Your task to perform on an android device: Clear all items from cart on bestbuy.com. Search for "acer nitro" on bestbuy.com, select the first entry, add it to the cart, then select checkout. Image 0: 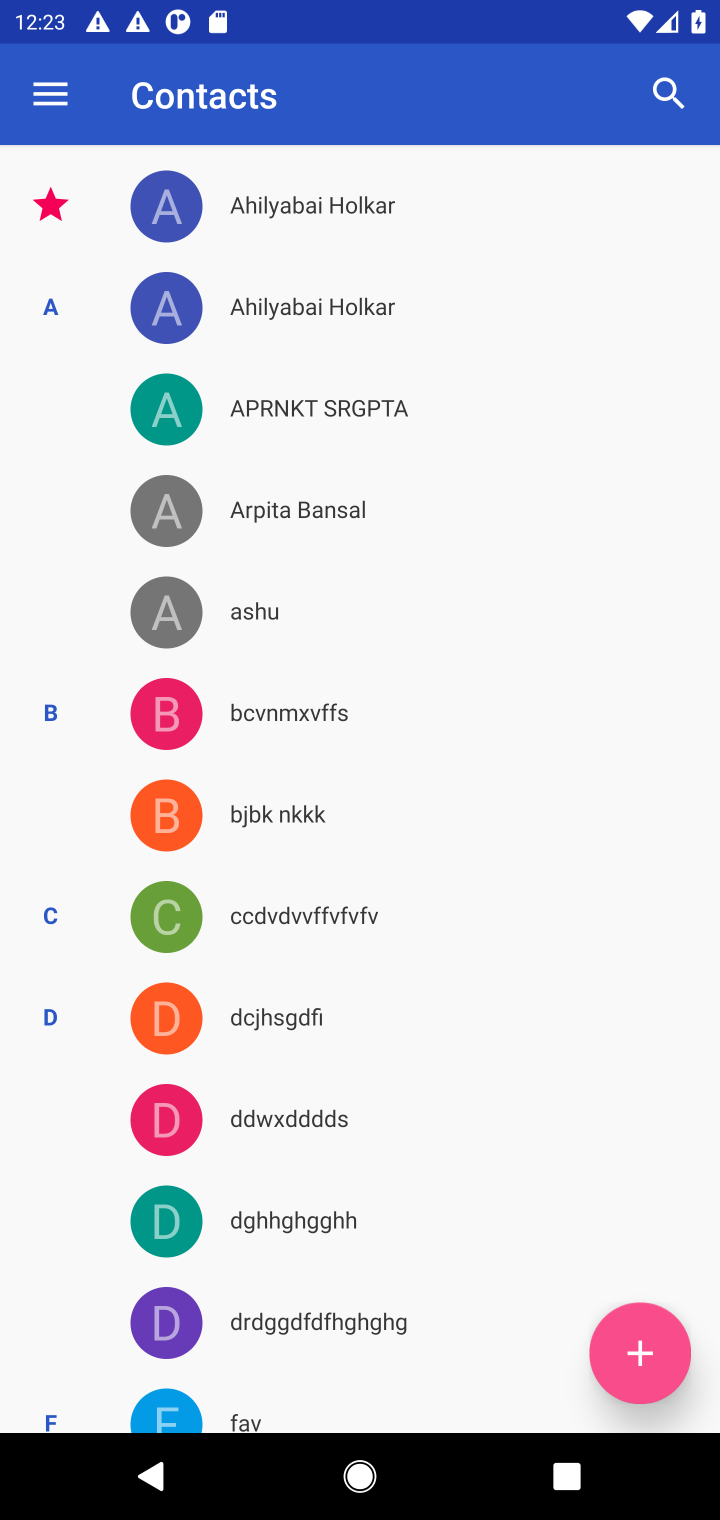
Step 0: press home button
Your task to perform on an android device: Clear all items from cart on bestbuy.com. Search for "acer nitro" on bestbuy.com, select the first entry, add it to the cart, then select checkout. Image 1: 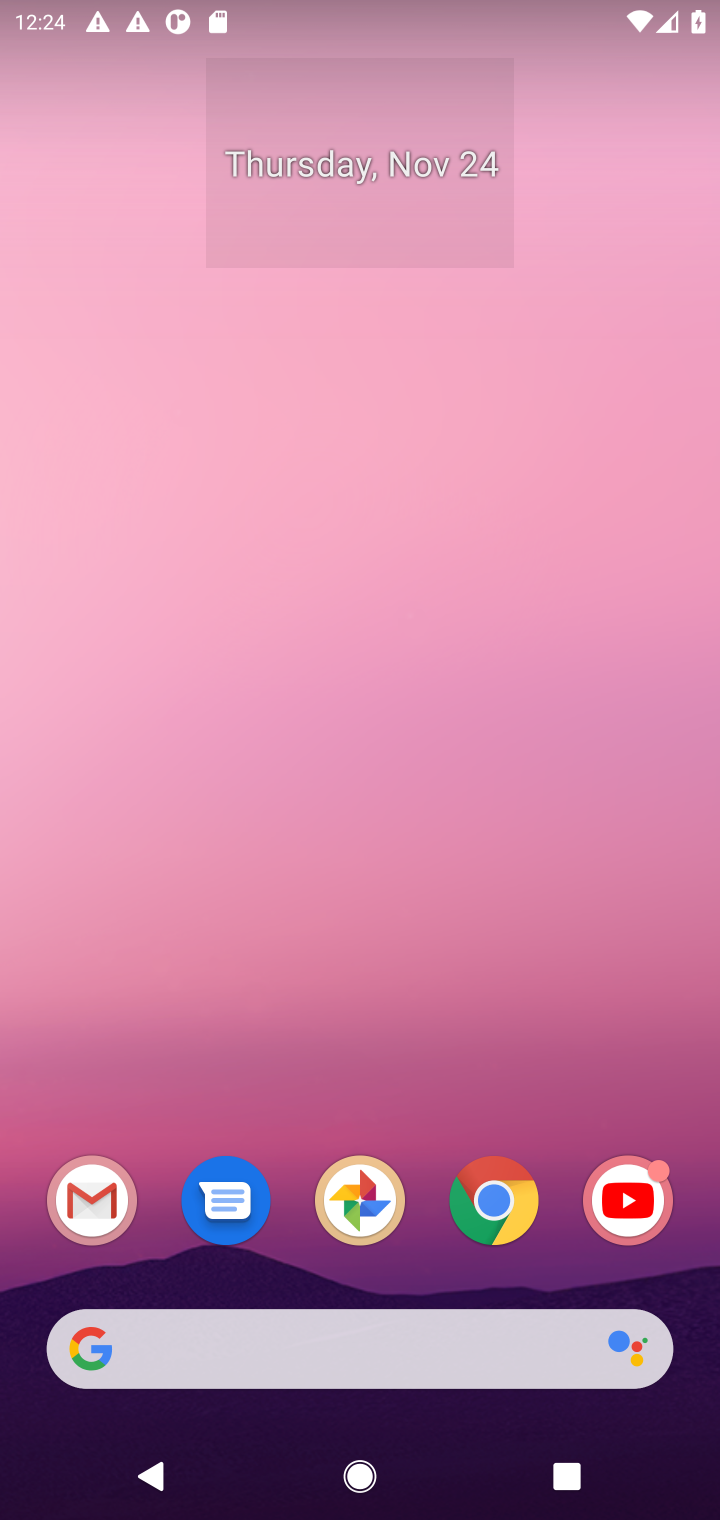
Step 1: click (384, 1366)
Your task to perform on an android device: Clear all items from cart on bestbuy.com. Search for "acer nitro" on bestbuy.com, select the first entry, add it to the cart, then select checkout. Image 2: 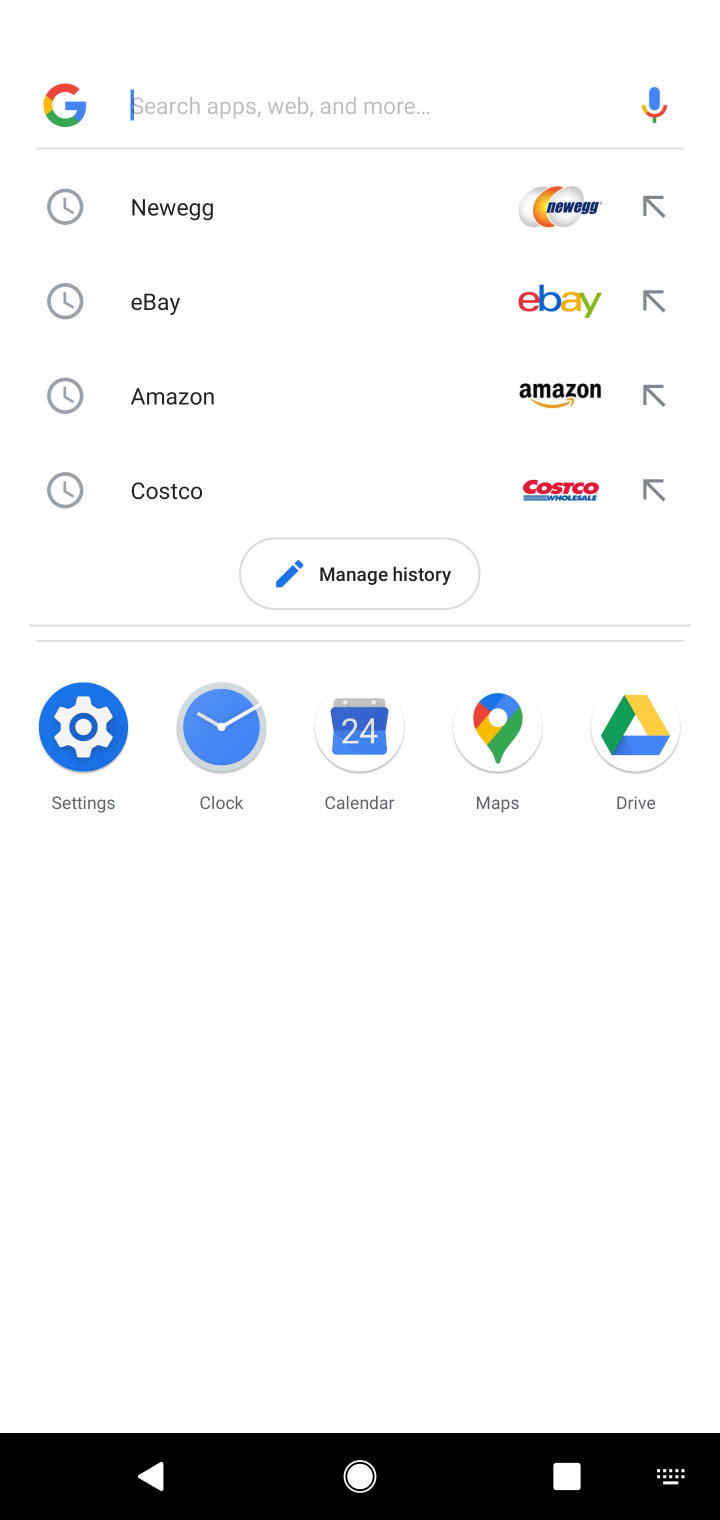
Step 2: type "bestbuy"
Your task to perform on an android device: Clear all items from cart on bestbuy.com. Search for "acer nitro" on bestbuy.com, select the first entry, add it to the cart, then select checkout. Image 3: 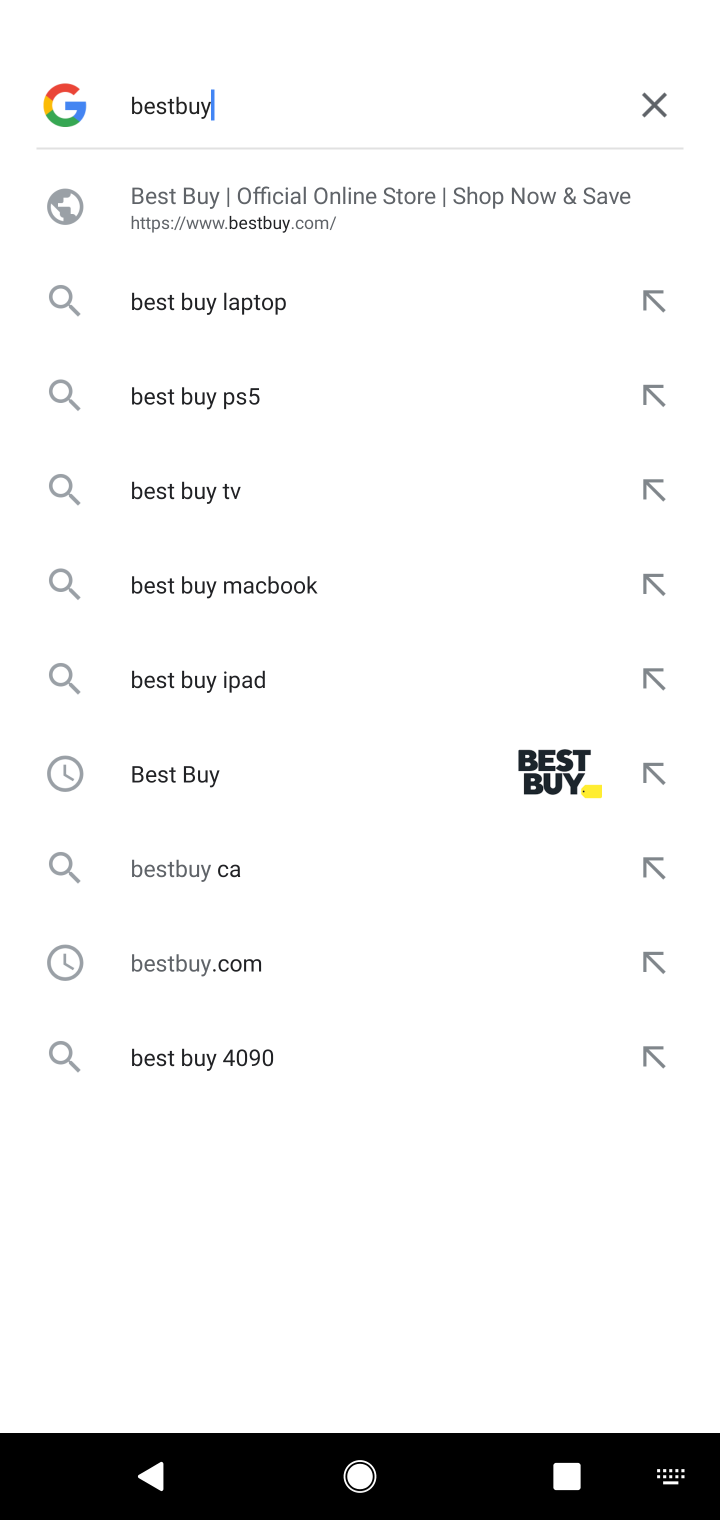
Step 3: click (329, 211)
Your task to perform on an android device: Clear all items from cart on bestbuy.com. Search for "acer nitro" on bestbuy.com, select the first entry, add it to the cart, then select checkout. Image 4: 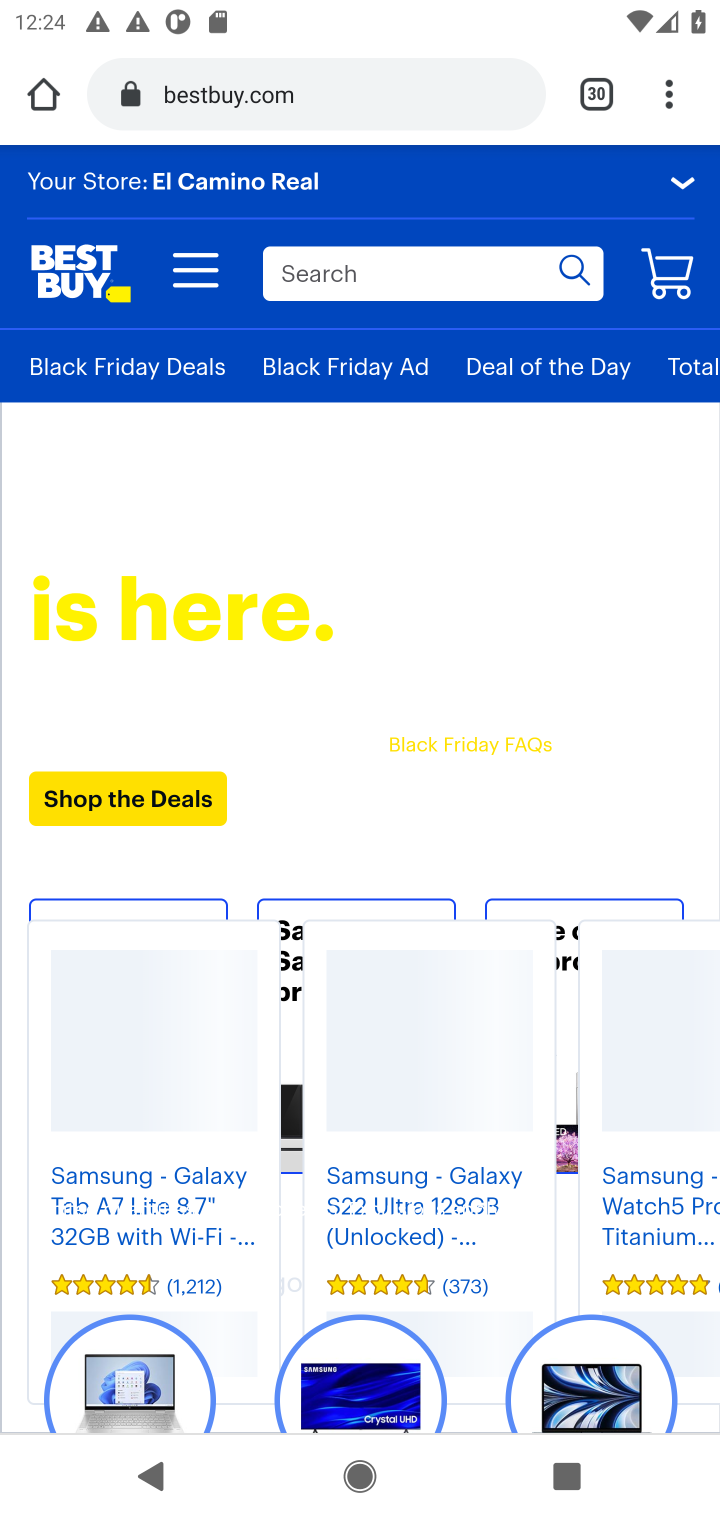
Step 4: click (394, 272)
Your task to perform on an android device: Clear all items from cart on bestbuy.com. Search for "acer nitro" on bestbuy.com, select the first entry, add it to the cart, then select checkout. Image 5: 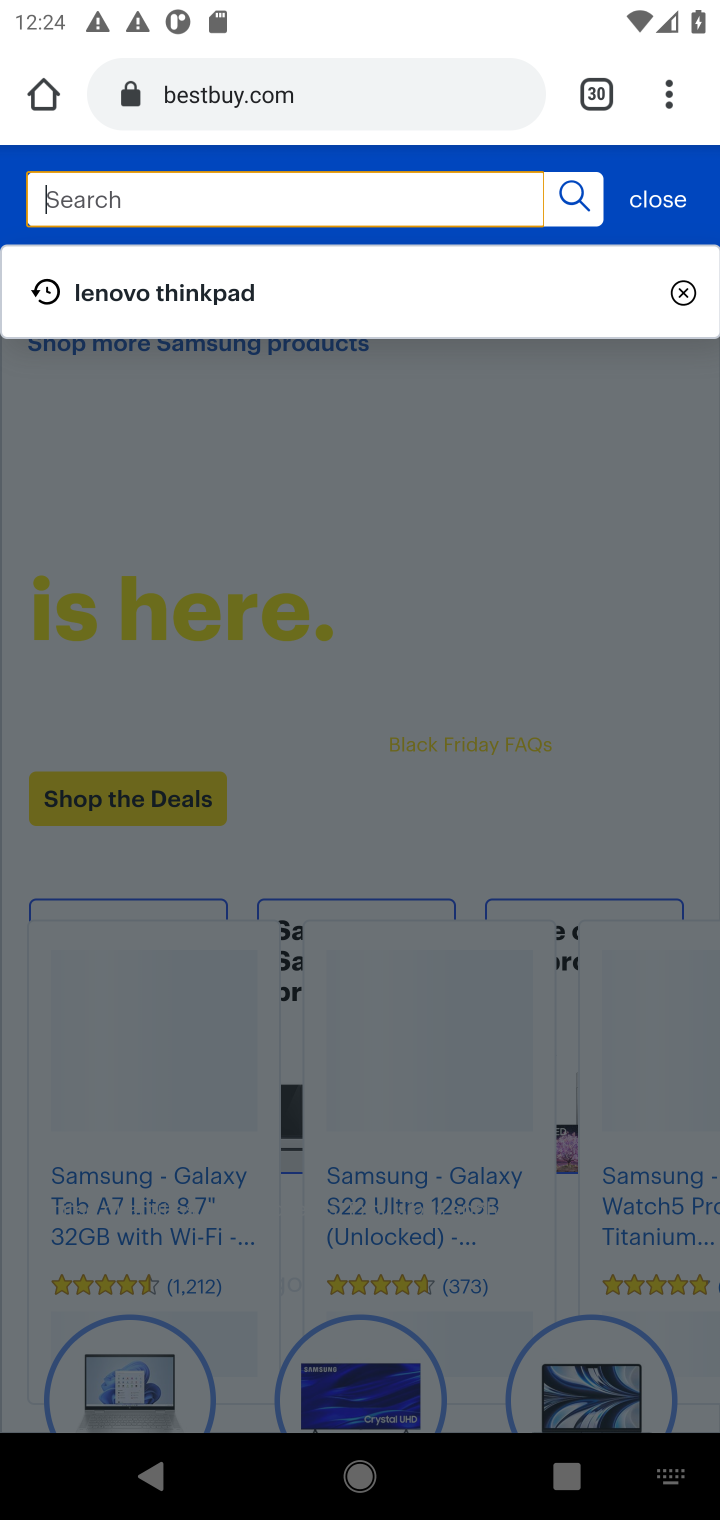
Step 5: type "acer nitro"
Your task to perform on an android device: Clear all items from cart on bestbuy.com. Search for "acer nitro" on bestbuy.com, select the first entry, add it to the cart, then select checkout. Image 6: 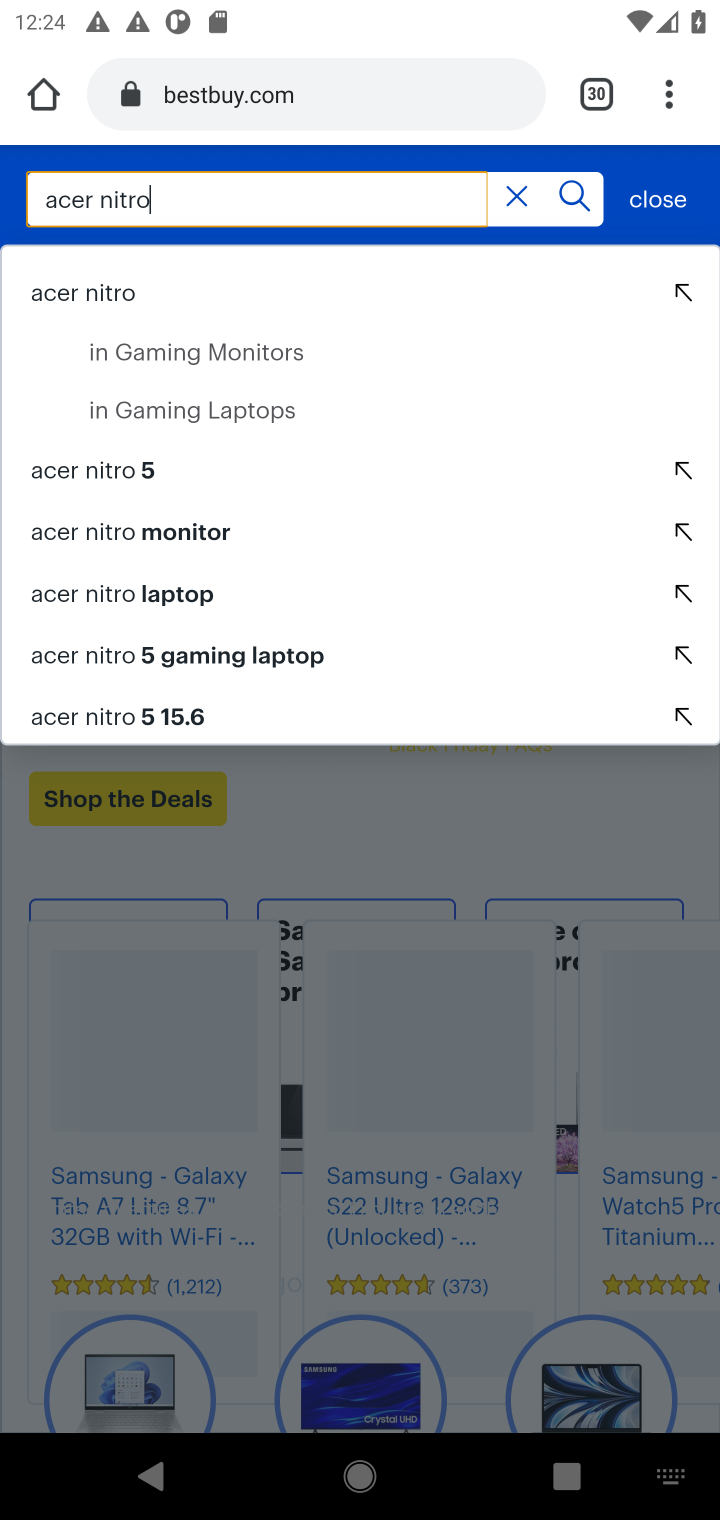
Step 6: click (93, 298)
Your task to perform on an android device: Clear all items from cart on bestbuy.com. Search for "acer nitro" on bestbuy.com, select the first entry, add it to the cart, then select checkout. Image 7: 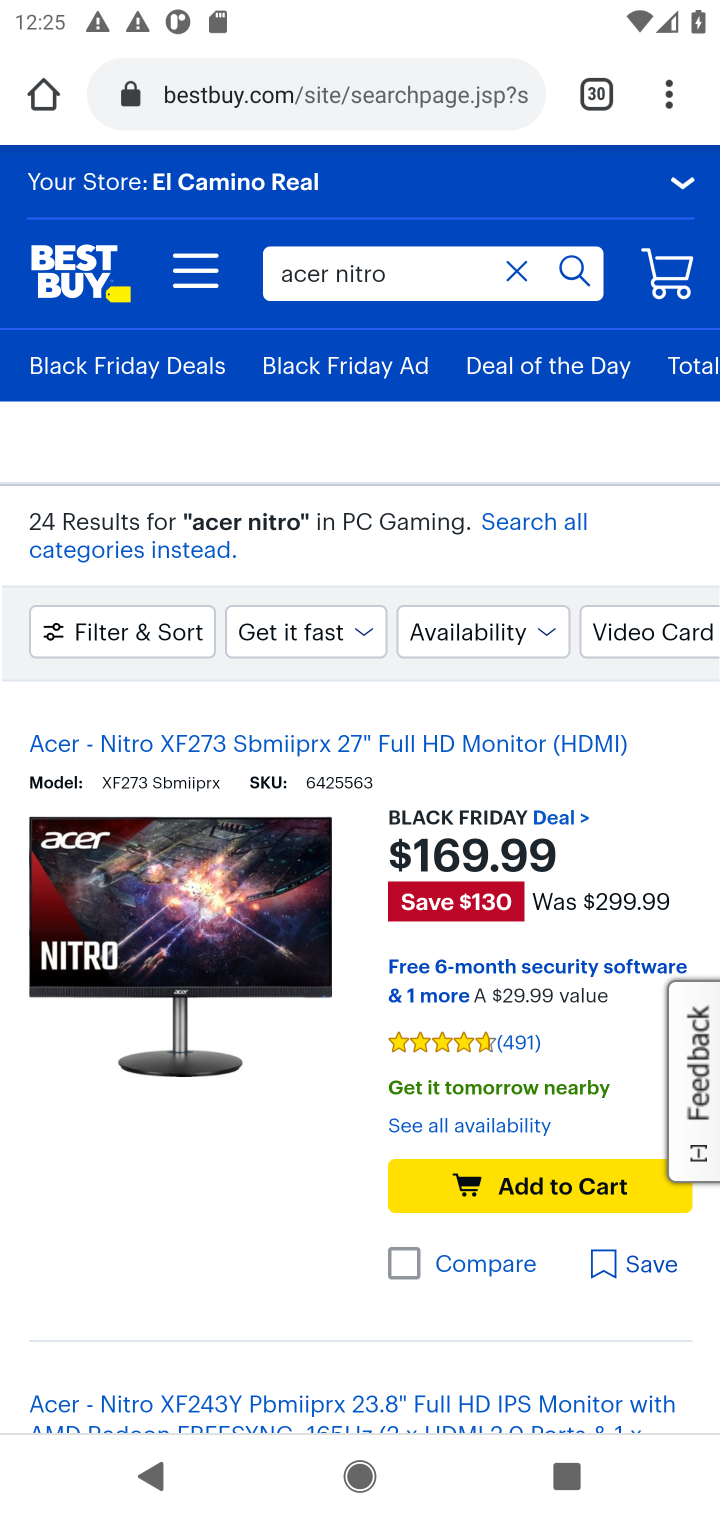
Step 7: drag from (303, 1201) to (271, 844)
Your task to perform on an android device: Clear all items from cart on bestbuy.com. Search for "acer nitro" on bestbuy.com, select the first entry, add it to the cart, then select checkout. Image 8: 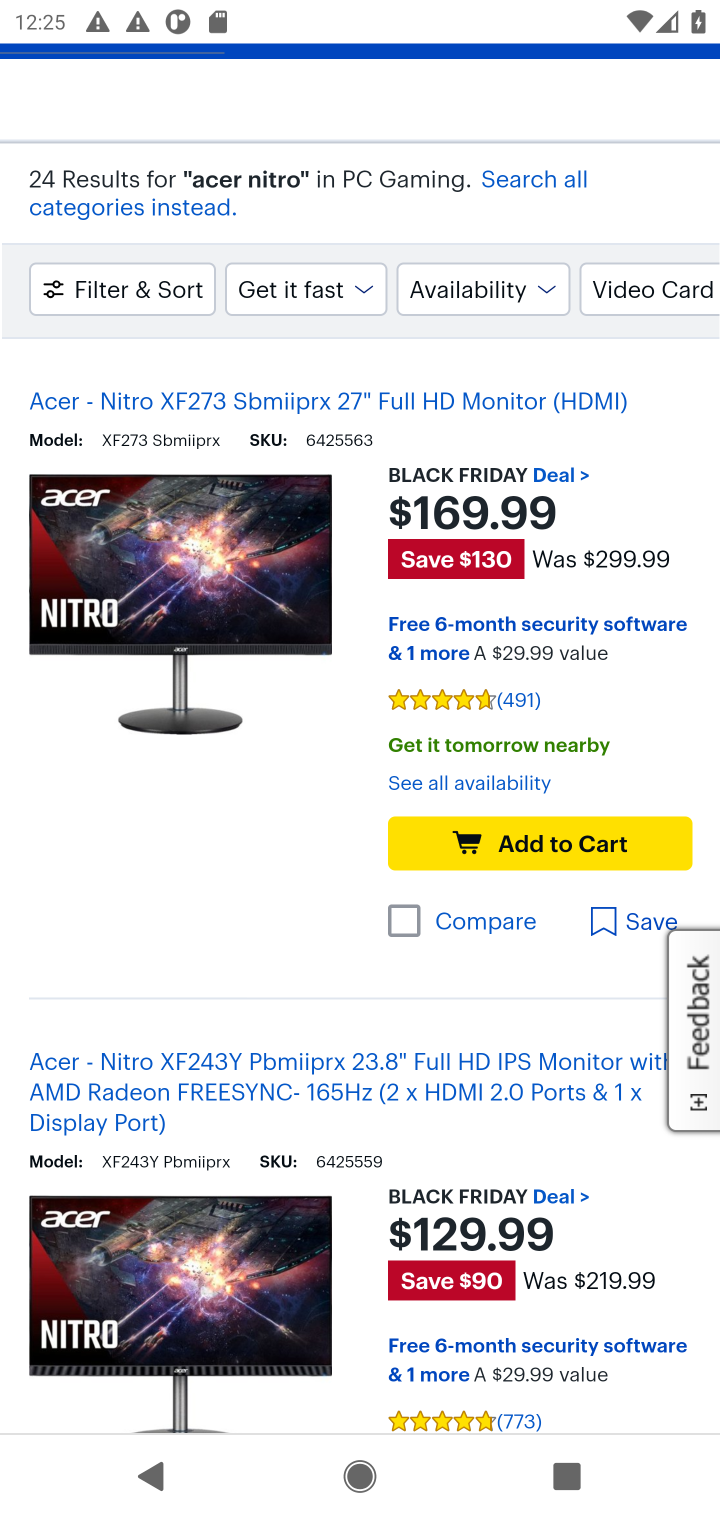
Step 8: click (468, 865)
Your task to perform on an android device: Clear all items from cart on bestbuy.com. Search for "acer nitro" on bestbuy.com, select the first entry, add it to the cart, then select checkout. Image 9: 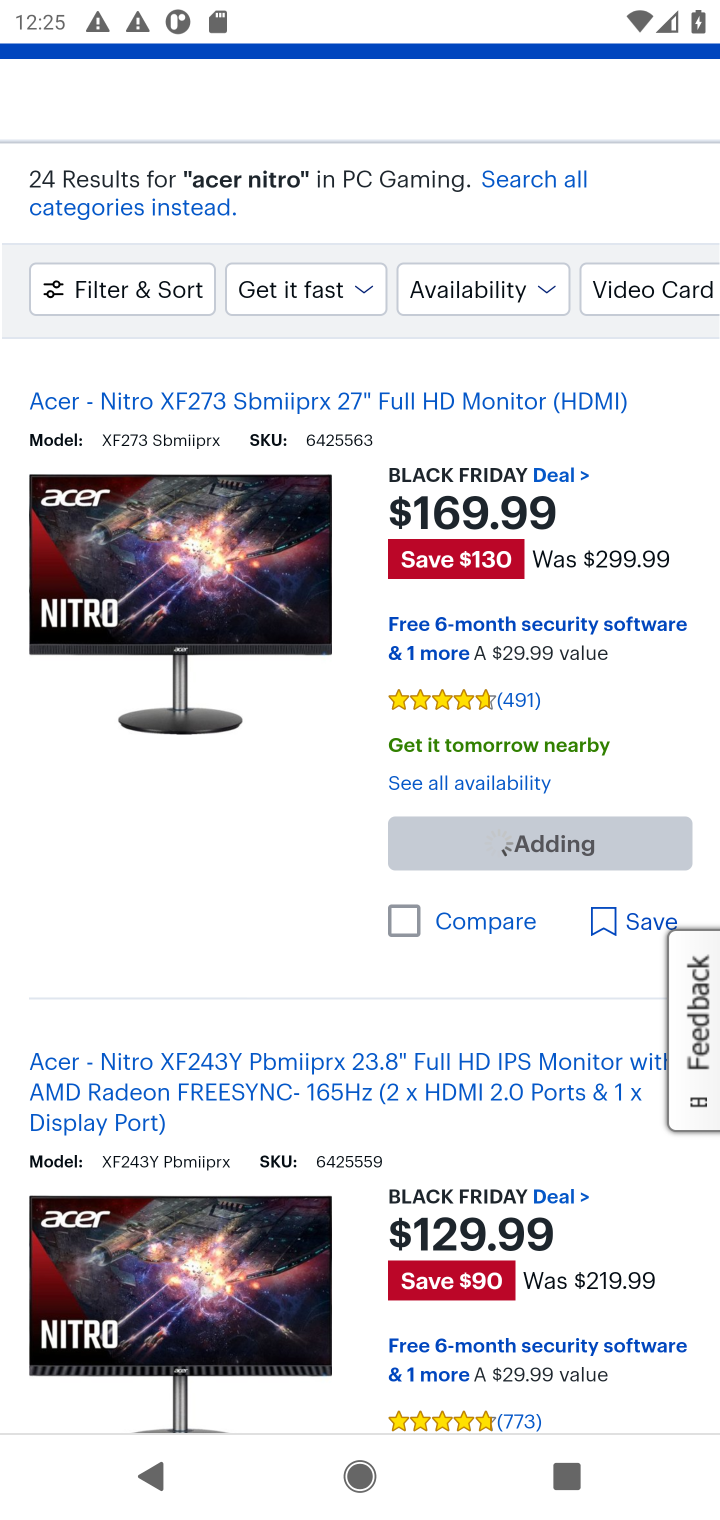
Step 9: task complete